Your task to perform on an android device: Open Chrome and go to settings Image 0: 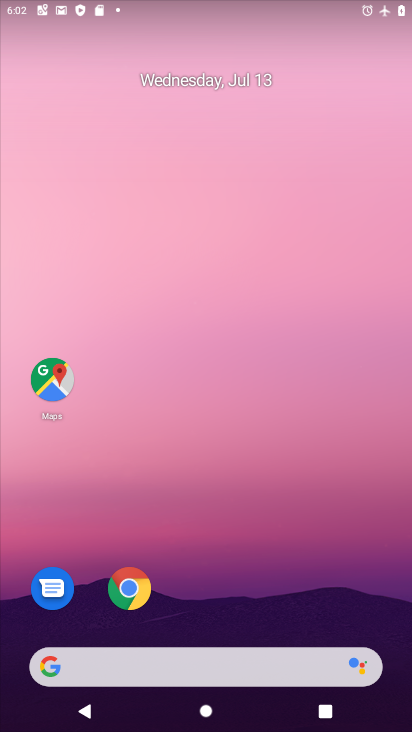
Step 0: click (130, 587)
Your task to perform on an android device: Open Chrome and go to settings Image 1: 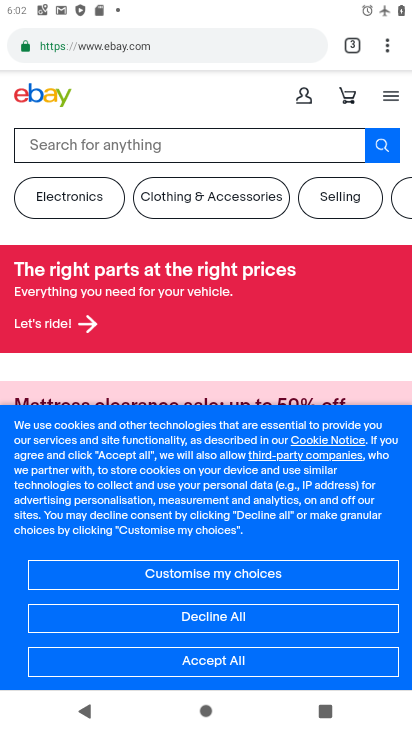
Step 1: click (388, 44)
Your task to perform on an android device: Open Chrome and go to settings Image 2: 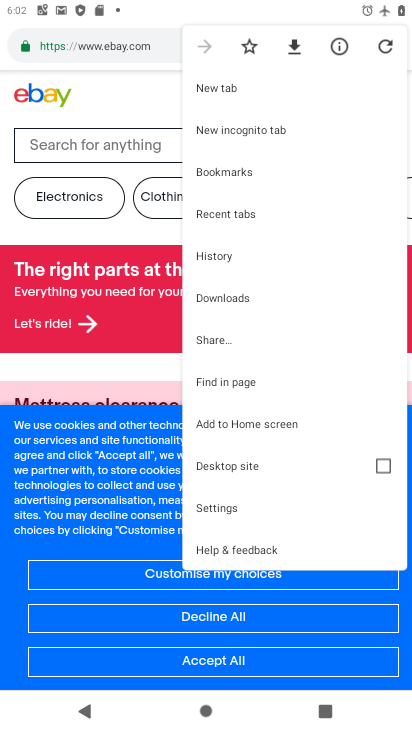
Step 2: click (222, 512)
Your task to perform on an android device: Open Chrome and go to settings Image 3: 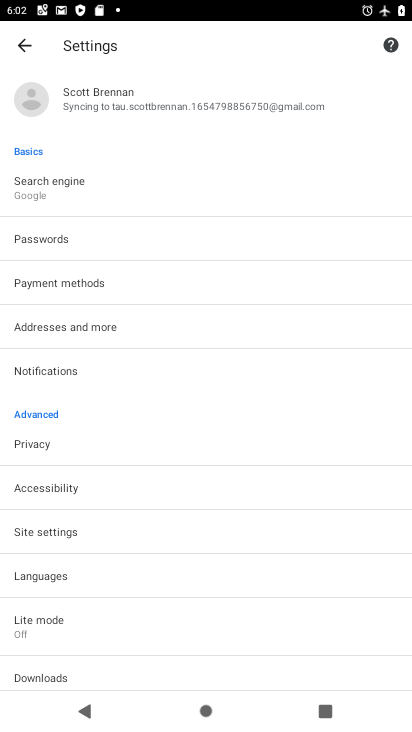
Step 3: task complete